Your task to perform on an android device: Go to Amazon Image 0: 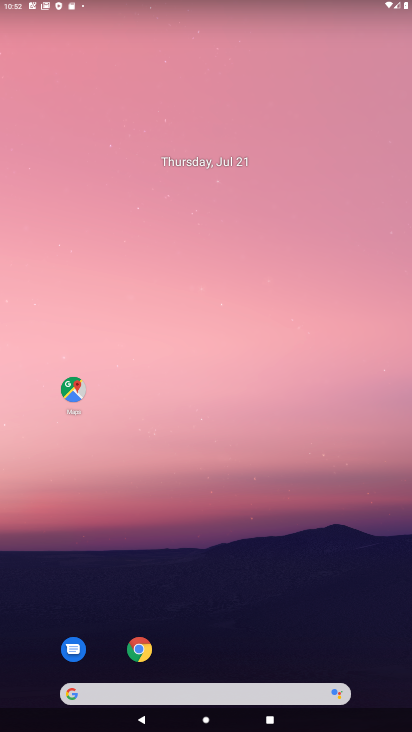
Step 0: click (139, 648)
Your task to perform on an android device: Go to Amazon Image 1: 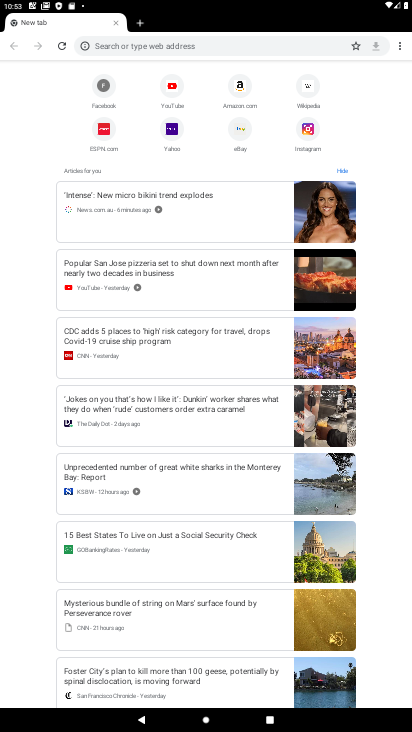
Step 1: click (241, 92)
Your task to perform on an android device: Go to Amazon Image 2: 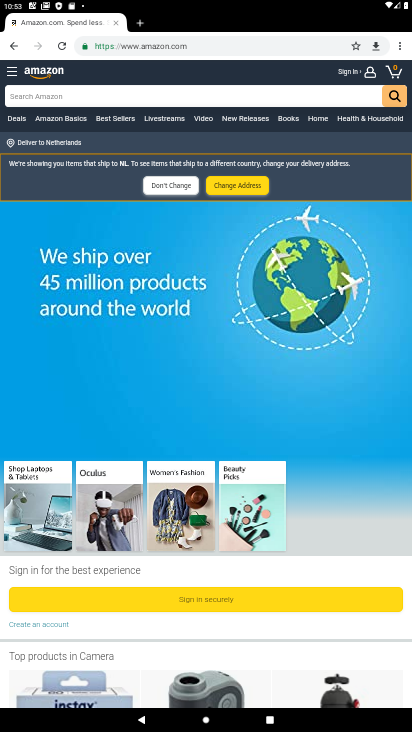
Step 2: task complete